Your task to perform on an android device: Open settings on Google Maps Image 0: 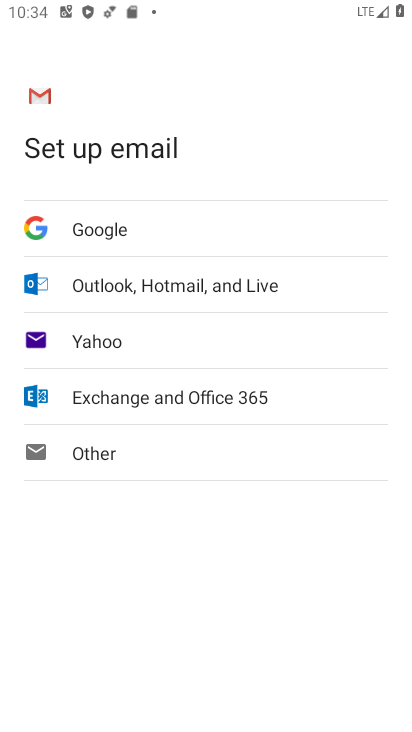
Step 0: press home button
Your task to perform on an android device: Open settings on Google Maps Image 1: 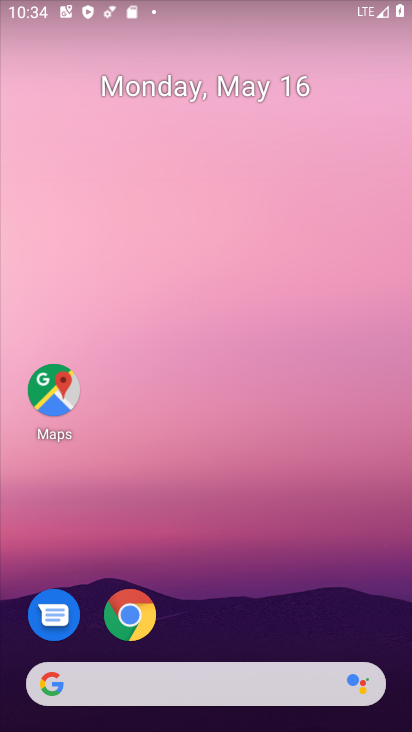
Step 1: drag from (271, 668) to (290, 259)
Your task to perform on an android device: Open settings on Google Maps Image 2: 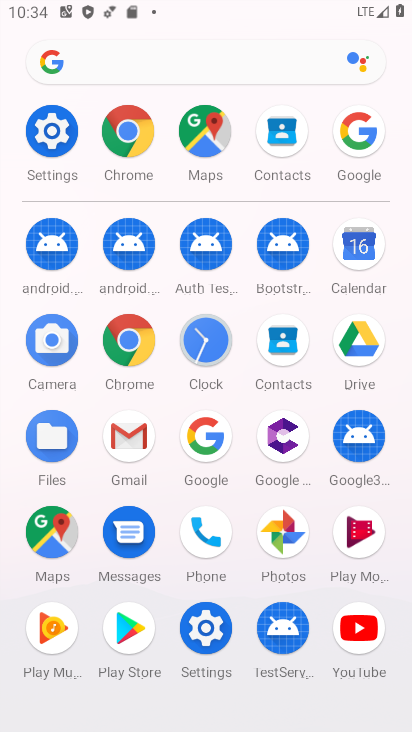
Step 2: click (53, 542)
Your task to perform on an android device: Open settings on Google Maps Image 3: 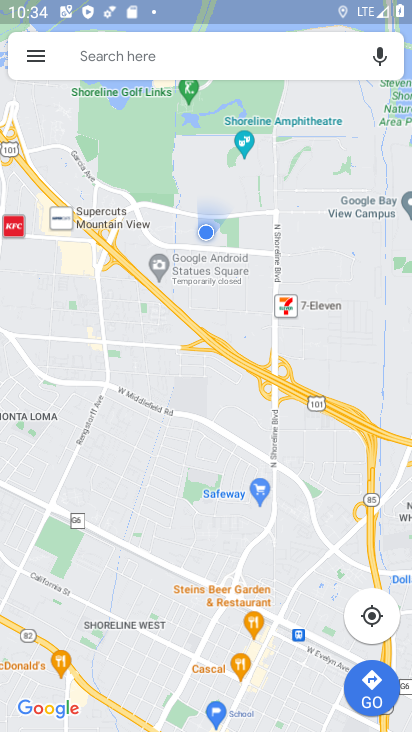
Step 3: click (45, 60)
Your task to perform on an android device: Open settings on Google Maps Image 4: 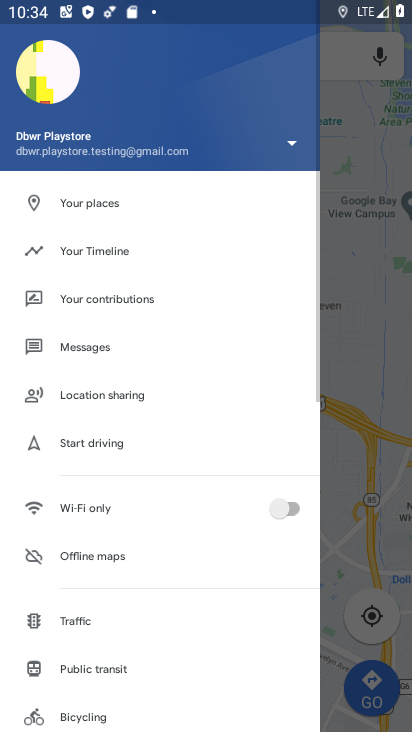
Step 4: drag from (138, 516) to (190, 176)
Your task to perform on an android device: Open settings on Google Maps Image 5: 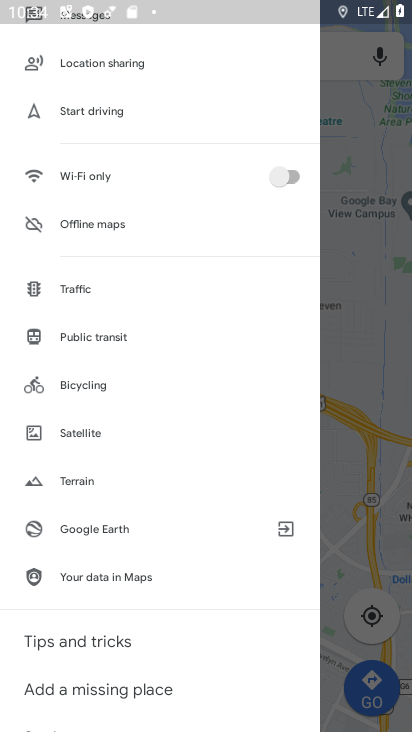
Step 5: drag from (96, 631) to (143, 309)
Your task to perform on an android device: Open settings on Google Maps Image 6: 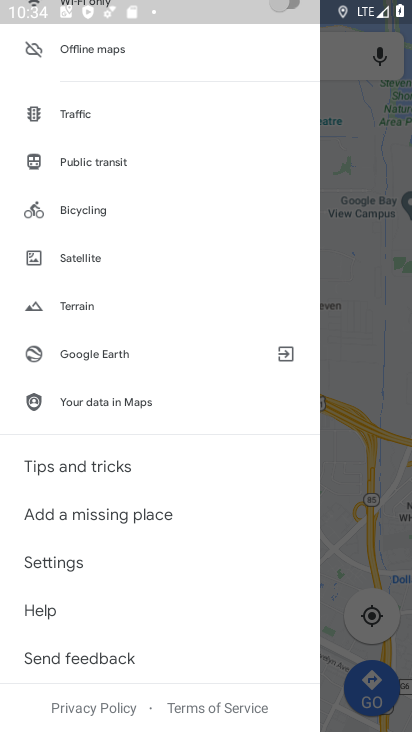
Step 6: click (67, 565)
Your task to perform on an android device: Open settings on Google Maps Image 7: 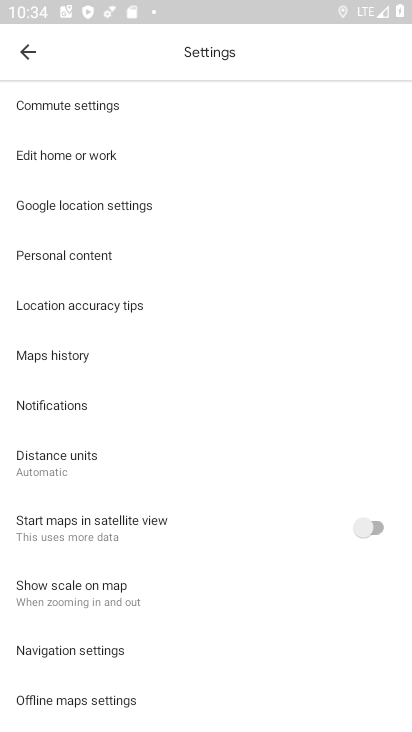
Step 7: task complete